Your task to perform on an android device: turn vacation reply on in the gmail app Image 0: 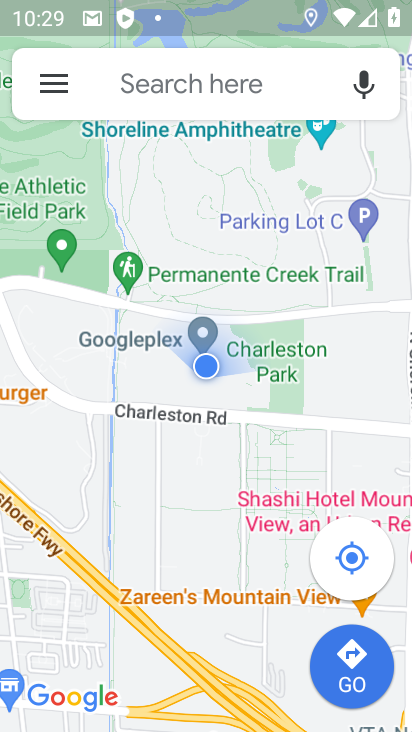
Step 0: press back button
Your task to perform on an android device: turn vacation reply on in the gmail app Image 1: 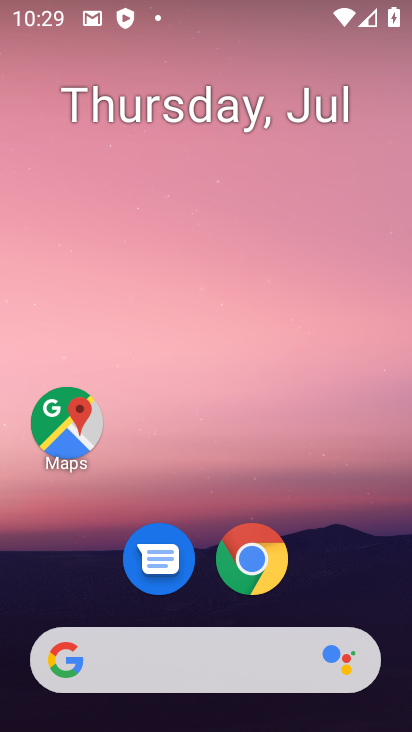
Step 1: drag from (117, 537) to (213, 7)
Your task to perform on an android device: turn vacation reply on in the gmail app Image 2: 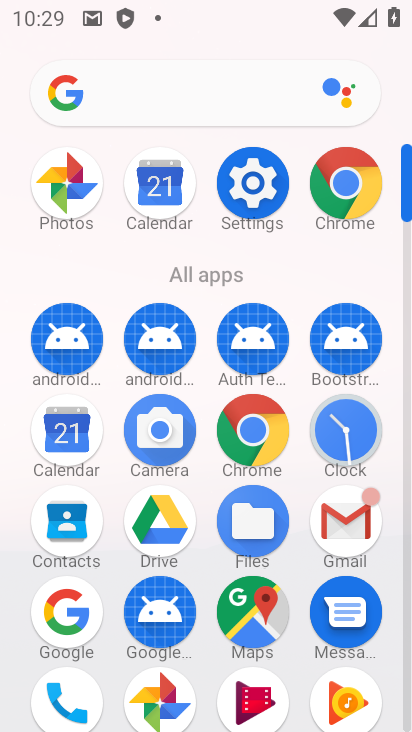
Step 2: click (341, 519)
Your task to perform on an android device: turn vacation reply on in the gmail app Image 3: 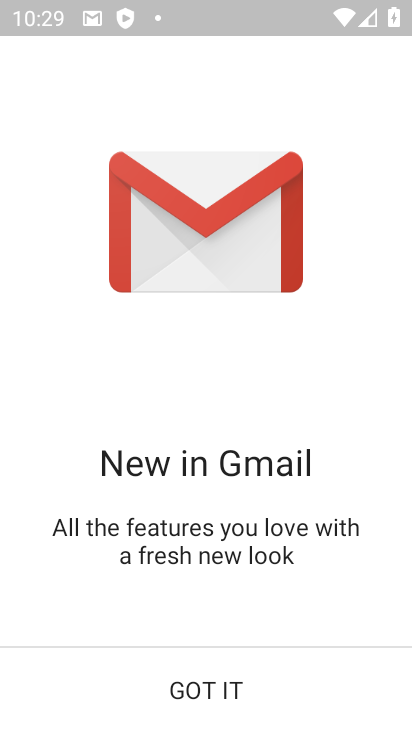
Step 3: click (229, 675)
Your task to perform on an android device: turn vacation reply on in the gmail app Image 4: 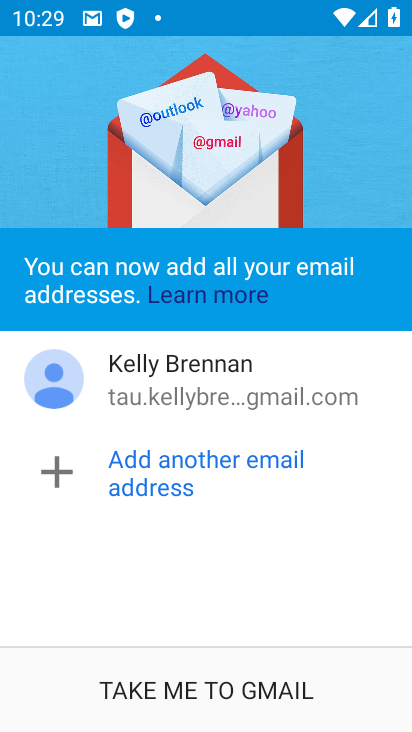
Step 4: click (177, 681)
Your task to perform on an android device: turn vacation reply on in the gmail app Image 5: 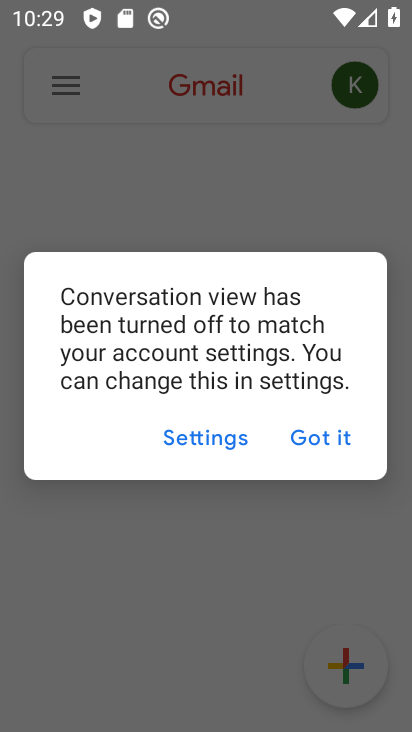
Step 5: click (294, 442)
Your task to perform on an android device: turn vacation reply on in the gmail app Image 6: 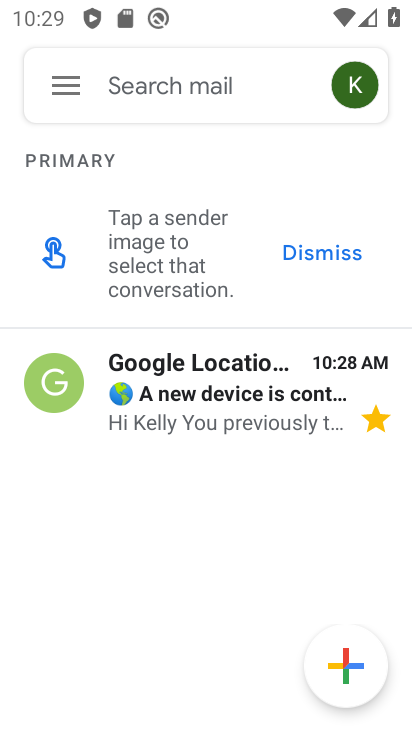
Step 6: click (65, 78)
Your task to perform on an android device: turn vacation reply on in the gmail app Image 7: 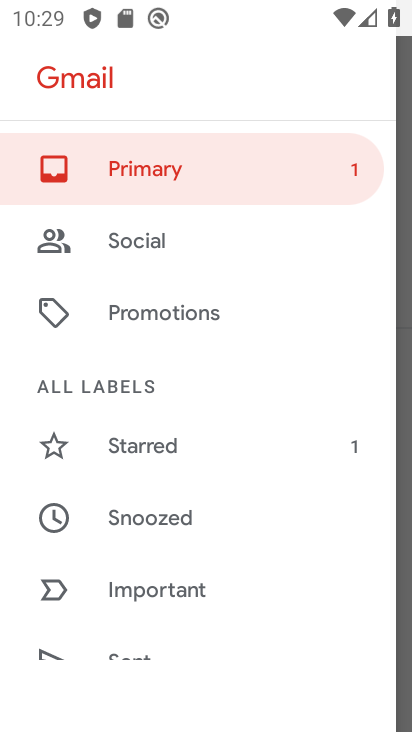
Step 7: drag from (166, 626) to (318, 34)
Your task to perform on an android device: turn vacation reply on in the gmail app Image 8: 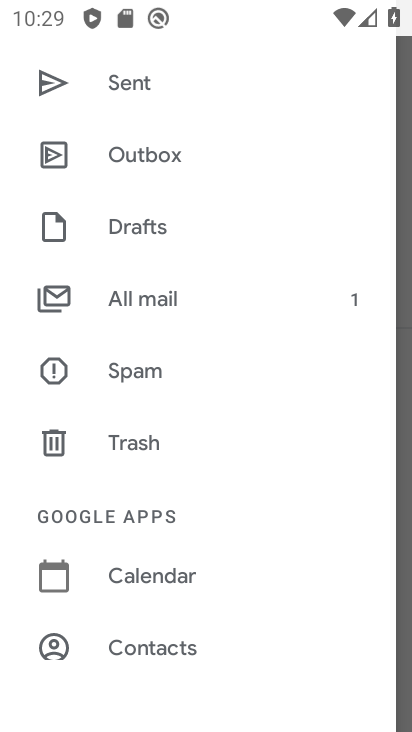
Step 8: drag from (168, 617) to (250, 92)
Your task to perform on an android device: turn vacation reply on in the gmail app Image 9: 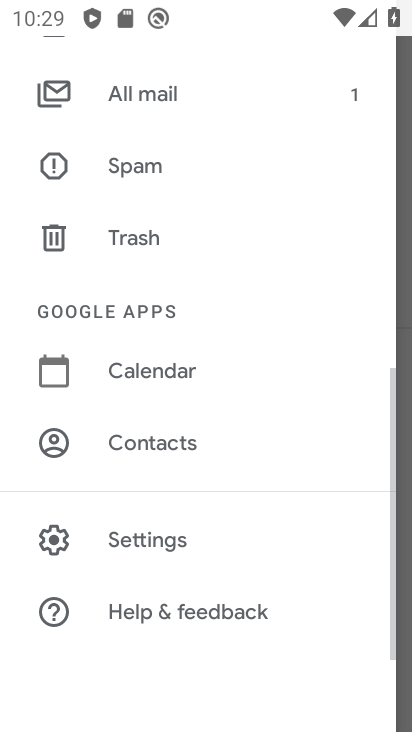
Step 9: click (162, 549)
Your task to perform on an android device: turn vacation reply on in the gmail app Image 10: 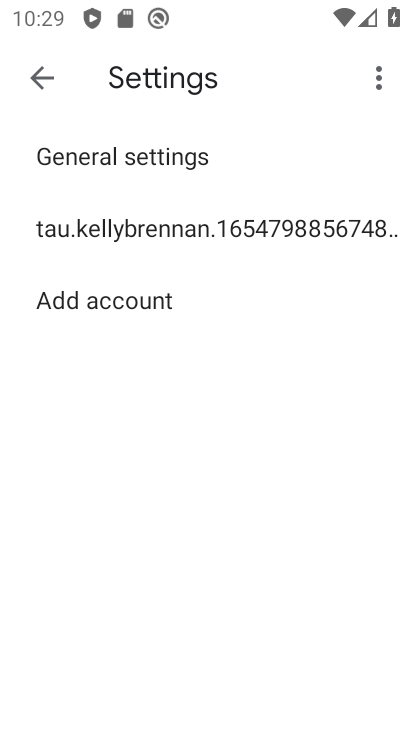
Step 10: click (205, 223)
Your task to perform on an android device: turn vacation reply on in the gmail app Image 11: 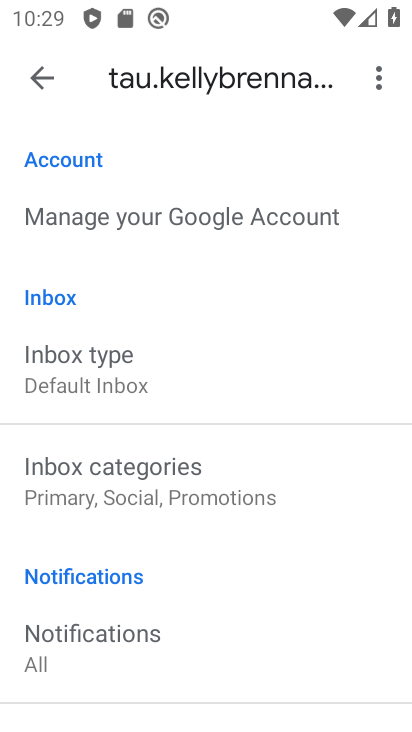
Step 11: drag from (146, 658) to (267, 19)
Your task to perform on an android device: turn vacation reply on in the gmail app Image 12: 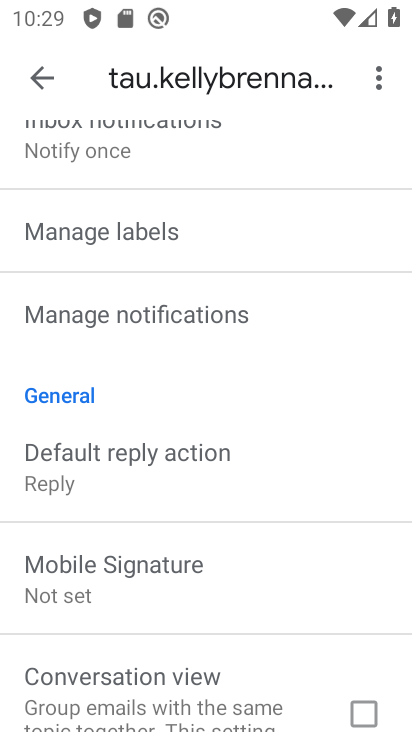
Step 12: drag from (140, 638) to (262, 113)
Your task to perform on an android device: turn vacation reply on in the gmail app Image 13: 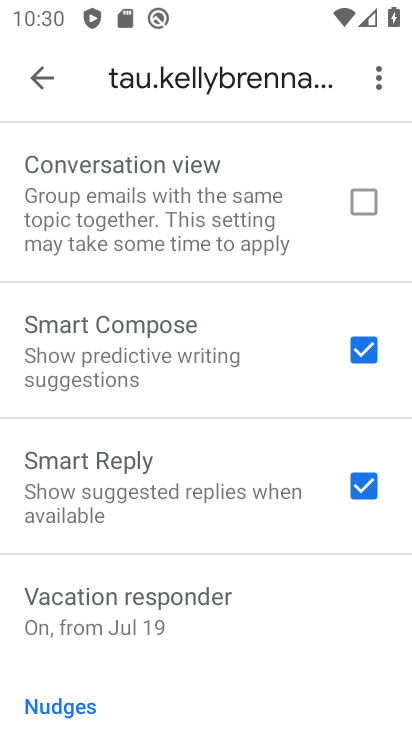
Step 13: click (131, 614)
Your task to perform on an android device: turn vacation reply on in the gmail app Image 14: 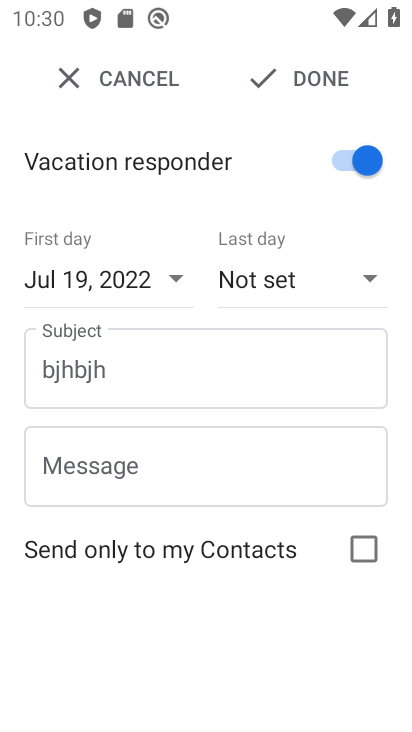
Step 14: task complete